Your task to perform on an android device: toggle notification dots Image 0: 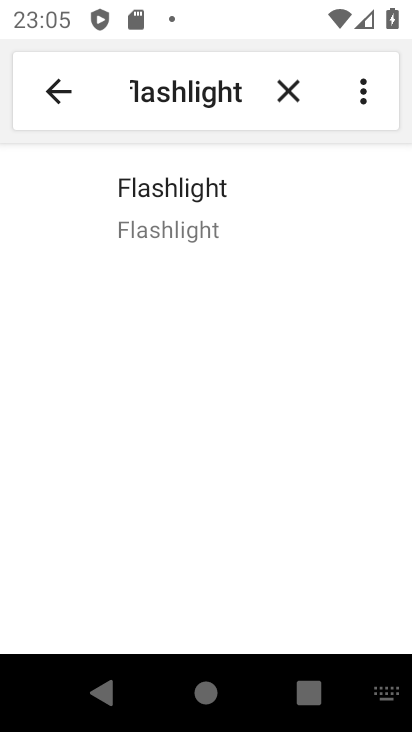
Step 0: press home button
Your task to perform on an android device: toggle notification dots Image 1: 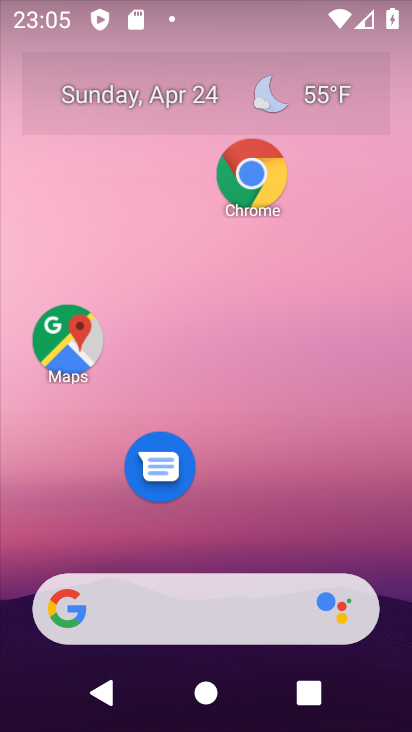
Step 1: drag from (244, 498) to (253, 46)
Your task to perform on an android device: toggle notification dots Image 2: 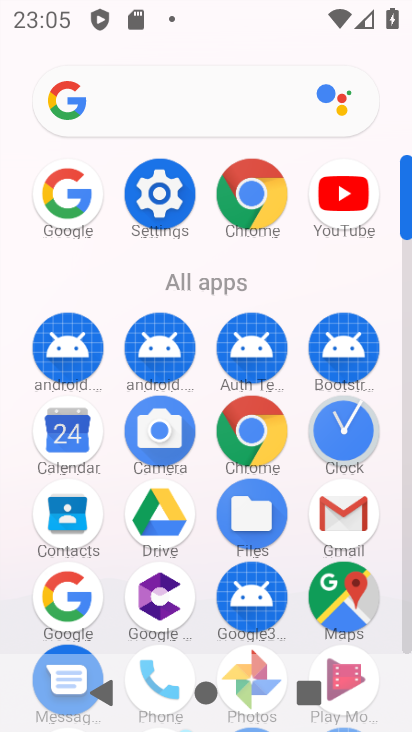
Step 2: click (162, 194)
Your task to perform on an android device: toggle notification dots Image 3: 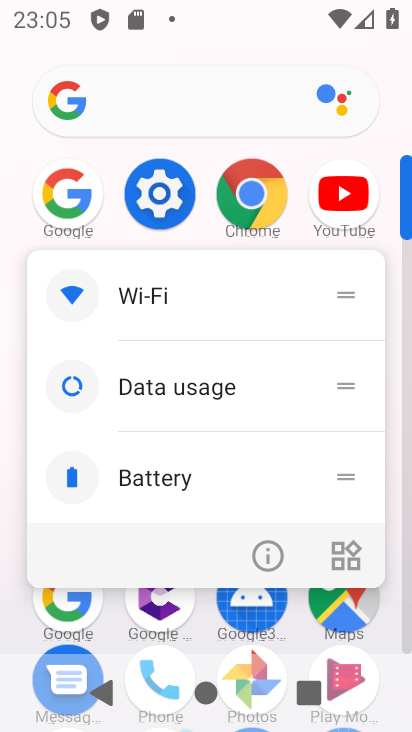
Step 3: click (163, 195)
Your task to perform on an android device: toggle notification dots Image 4: 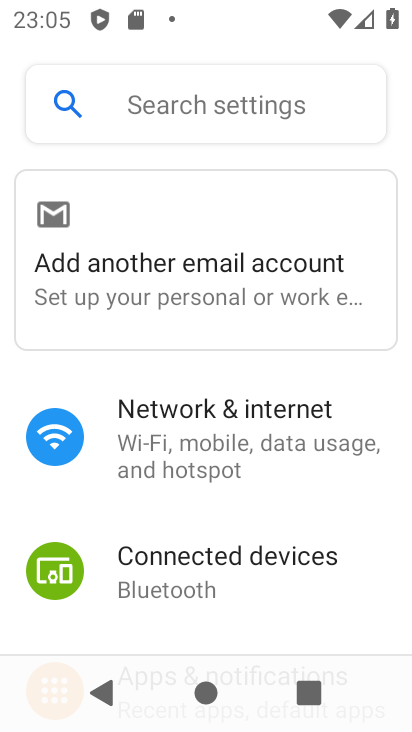
Step 4: drag from (269, 604) to (284, 196)
Your task to perform on an android device: toggle notification dots Image 5: 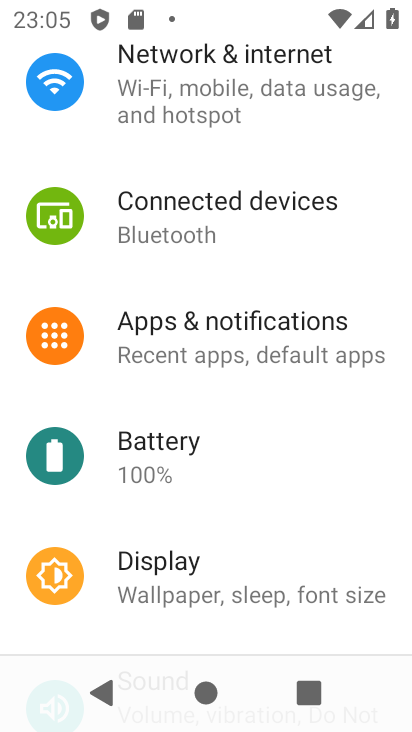
Step 5: click (233, 328)
Your task to perform on an android device: toggle notification dots Image 6: 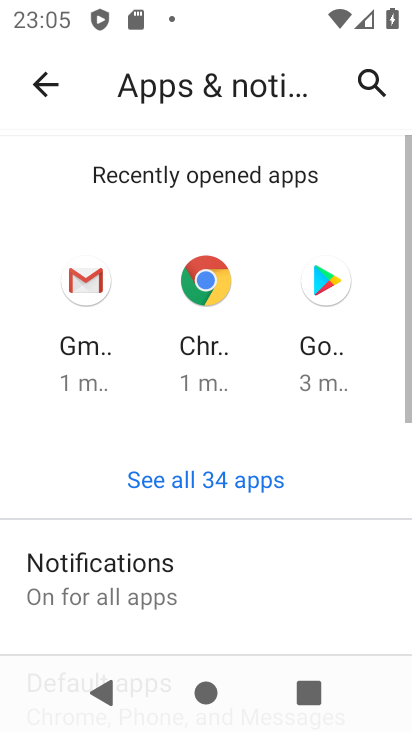
Step 6: drag from (243, 570) to (263, 266)
Your task to perform on an android device: toggle notification dots Image 7: 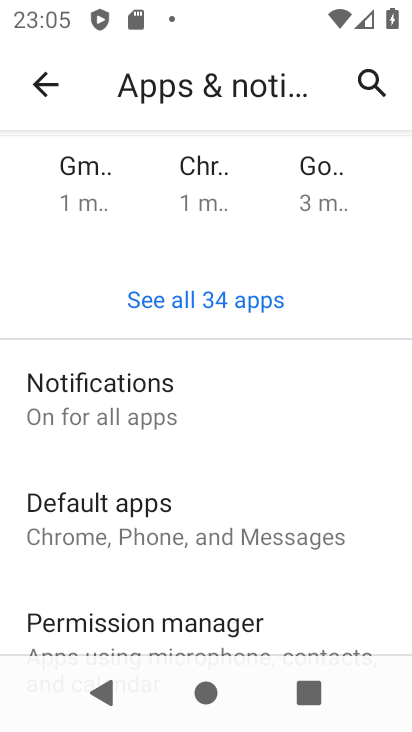
Step 7: click (152, 387)
Your task to perform on an android device: toggle notification dots Image 8: 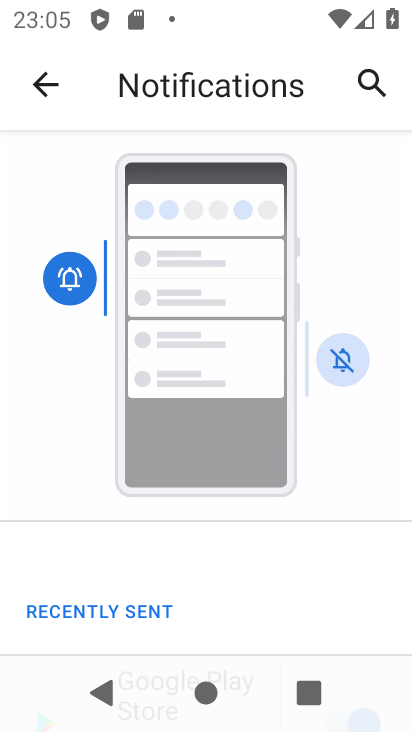
Step 8: drag from (206, 585) to (251, 56)
Your task to perform on an android device: toggle notification dots Image 9: 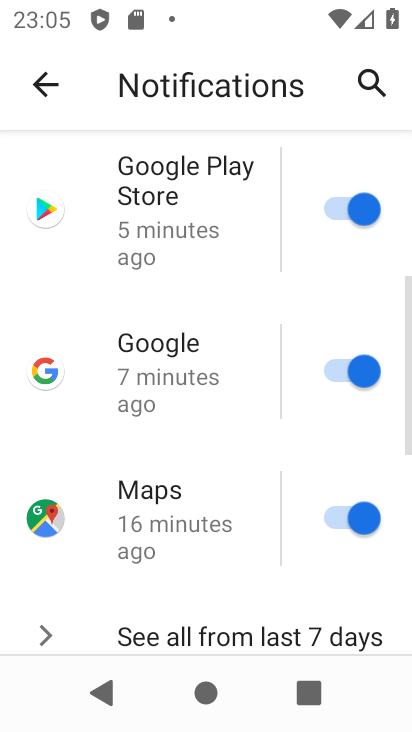
Step 9: drag from (230, 595) to (242, 274)
Your task to perform on an android device: toggle notification dots Image 10: 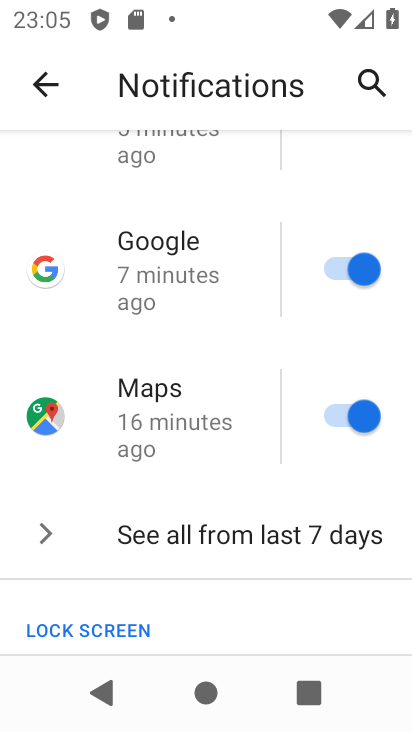
Step 10: drag from (208, 571) to (220, 186)
Your task to perform on an android device: toggle notification dots Image 11: 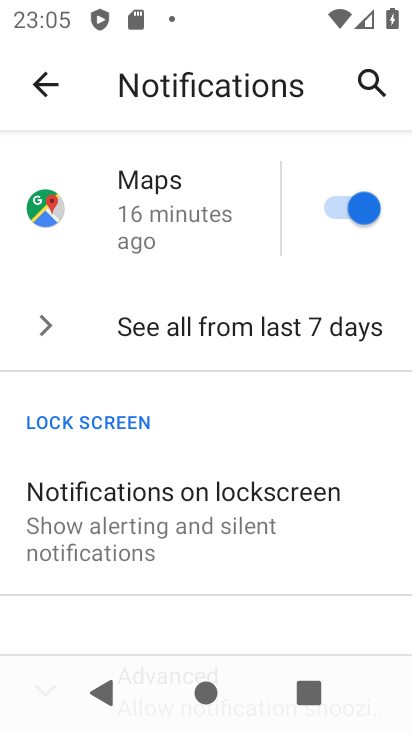
Step 11: drag from (305, 555) to (299, 113)
Your task to perform on an android device: toggle notification dots Image 12: 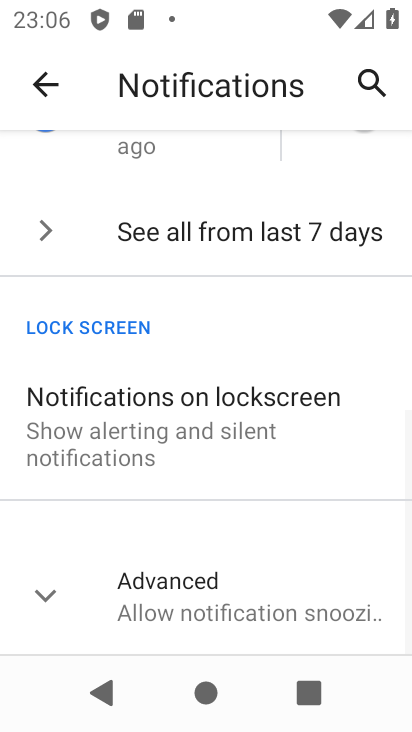
Step 12: click (138, 605)
Your task to perform on an android device: toggle notification dots Image 13: 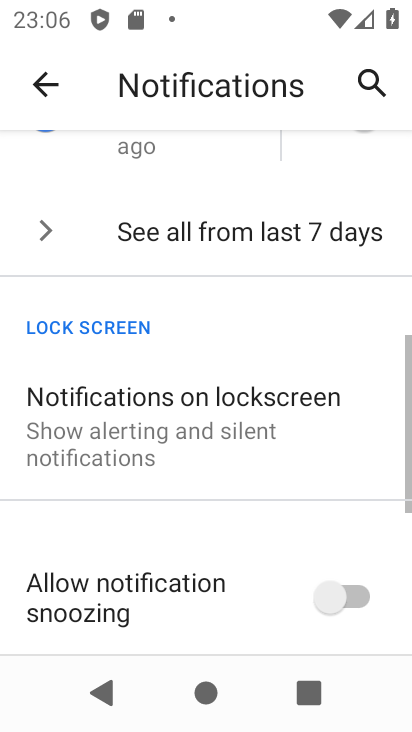
Step 13: drag from (280, 606) to (282, 203)
Your task to perform on an android device: toggle notification dots Image 14: 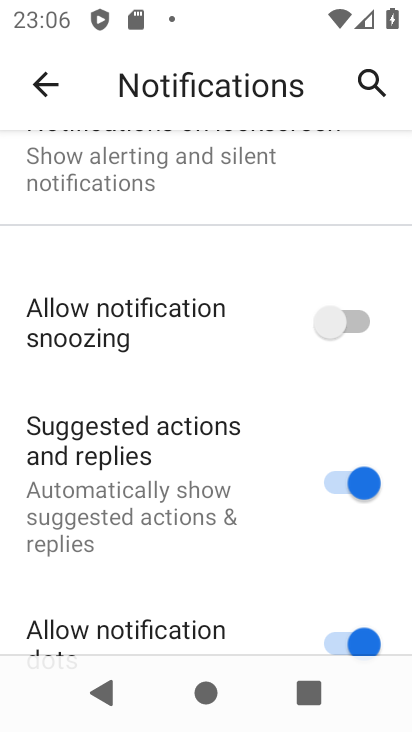
Step 14: drag from (259, 585) to (258, 257)
Your task to perform on an android device: toggle notification dots Image 15: 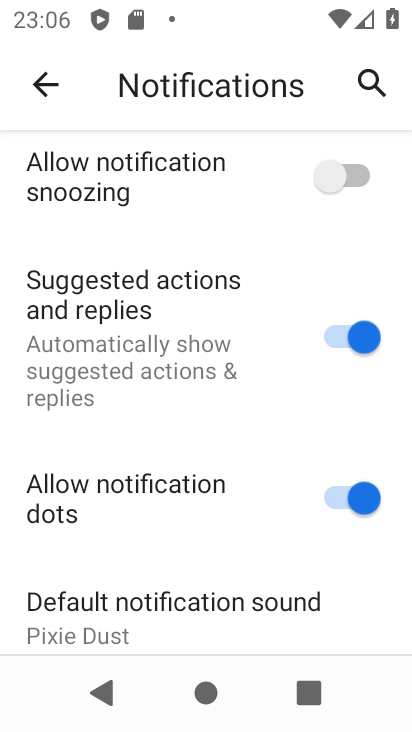
Step 15: click (370, 492)
Your task to perform on an android device: toggle notification dots Image 16: 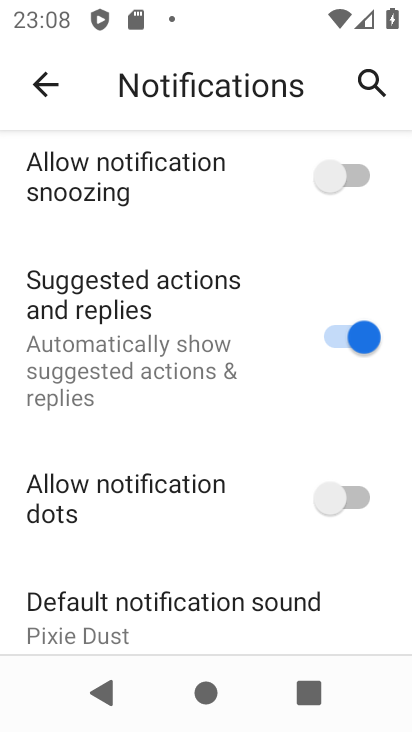
Step 16: task complete